Your task to perform on an android device: Open the map Image 0: 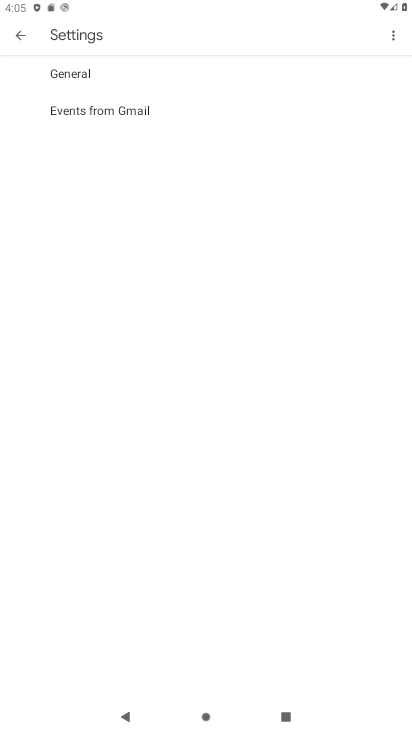
Step 0: press home button
Your task to perform on an android device: Open the map Image 1: 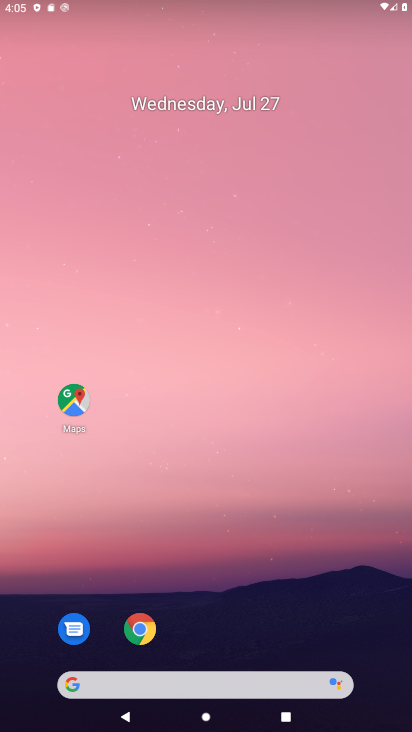
Step 1: drag from (204, 643) to (224, 214)
Your task to perform on an android device: Open the map Image 2: 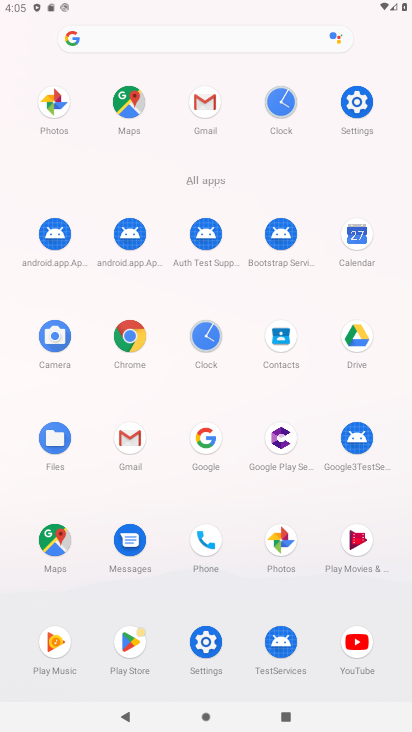
Step 2: click (63, 542)
Your task to perform on an android device: Open the map Image 3: 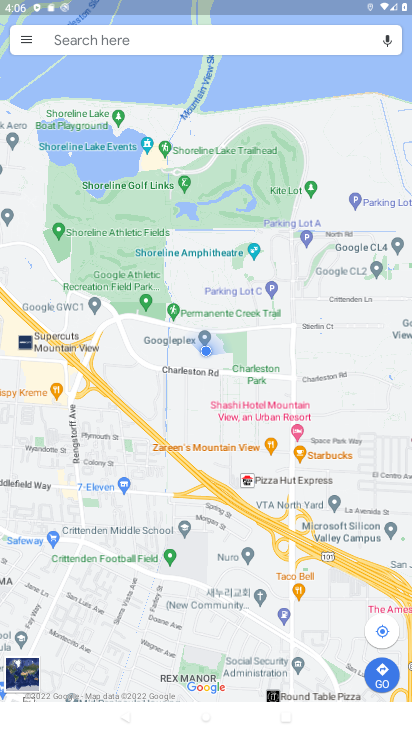
Step 3: task complete